Your task to perform on an android device: open device folders in google photos Image 0: 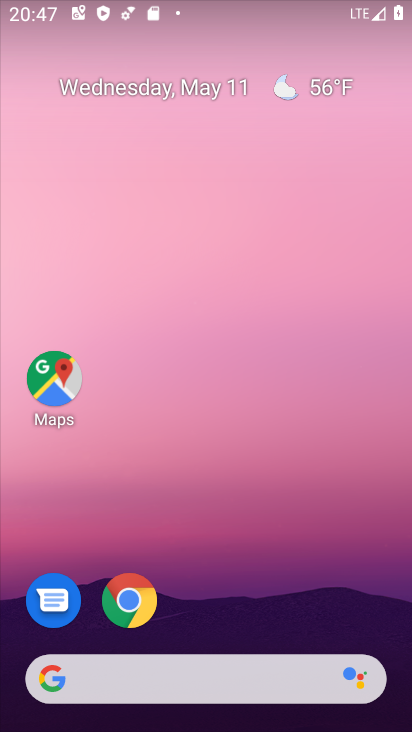
Step 0: drag from (243, 588) to (185, 16)
Your task to perform on an android device: open device folders in google photos Image 1: 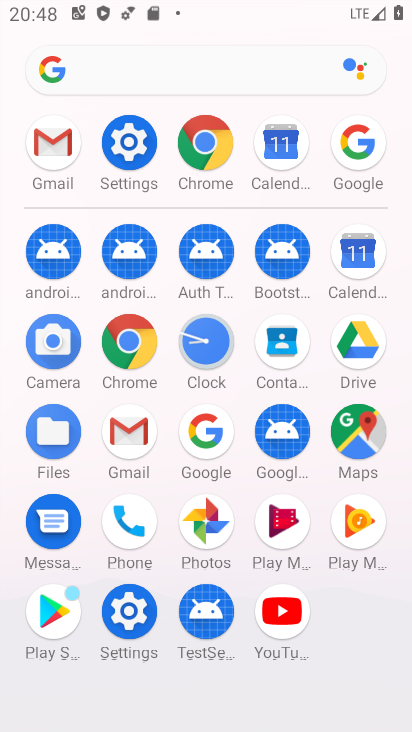
Step 1: click (204, 519)
Your task to perform on an android device: open device folders in google photos Image 2: 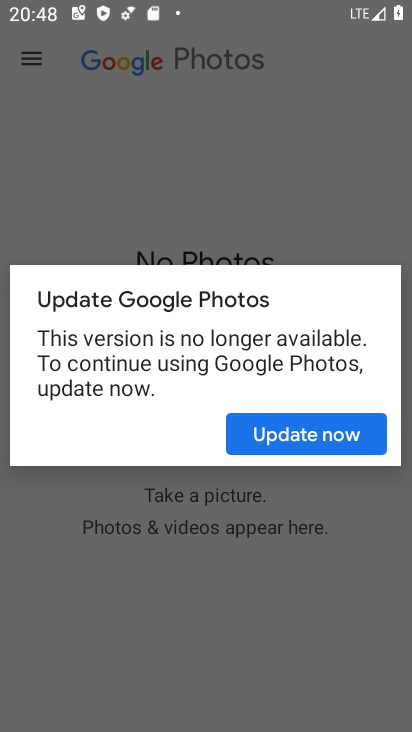
Step 2: click (305, 441)
Your task to perform on an android device: open device folders in google photos Image 3: 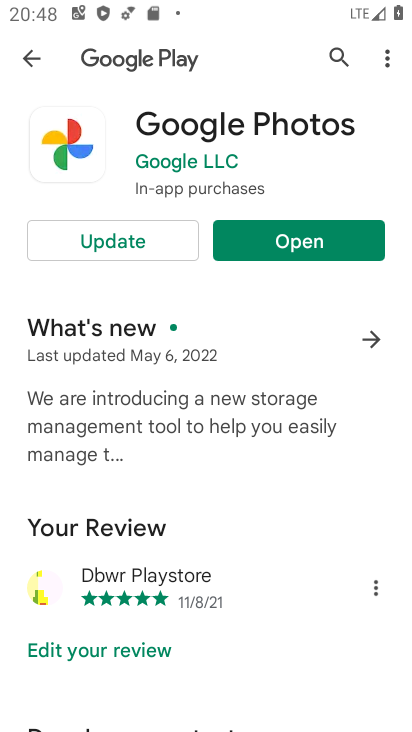
Step 3: click (149, 251)
Your task to perform on an android device: open device folders in google photos Image 4: 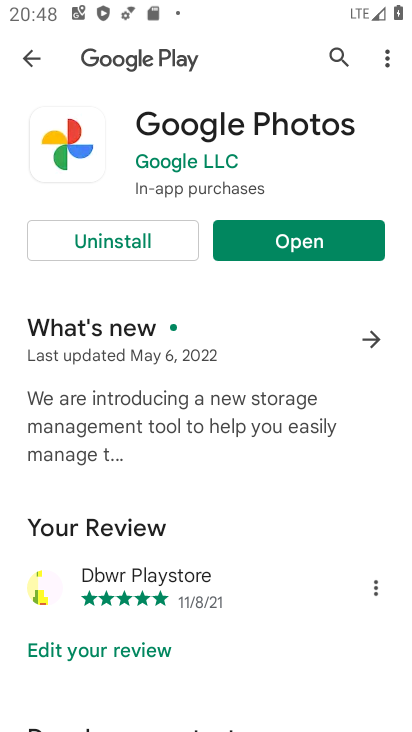
Step 4: click (309, 245)
Your task to perform on an android device: open device folders in google photos Image 5: 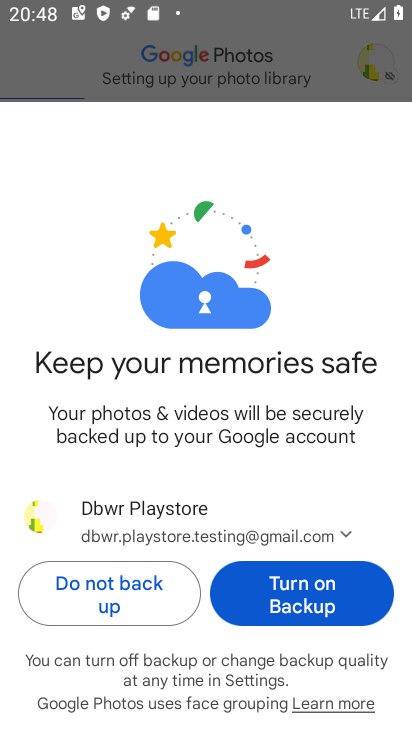
Step 5: click (272, 601)
Your task to perform on an android device: open device folders in google photos Image 6: 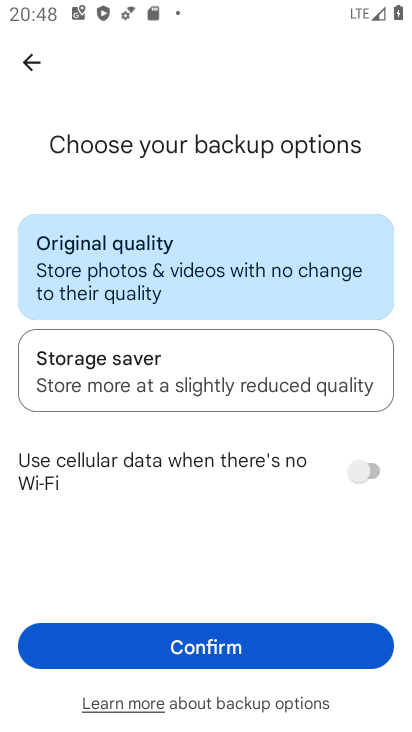
Step 6: click (161, 657)
Your task to perform on an android device: open device folders in google photos Image 7: 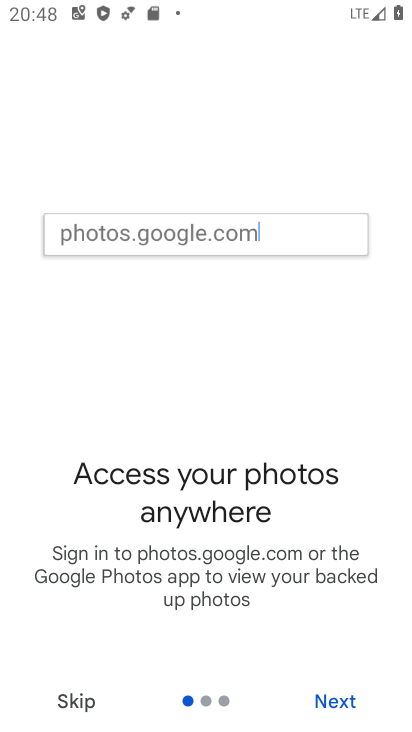
Step 7: click (323, 694)
Your task to perform on an android device: open device folders in google photos Image 8: 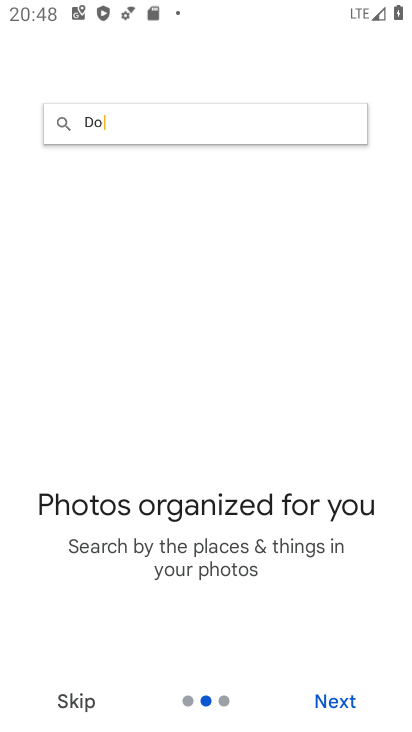
Step 8: click (323, 694)
Your task to perform on an android device: open device folders in google photos Image 9: 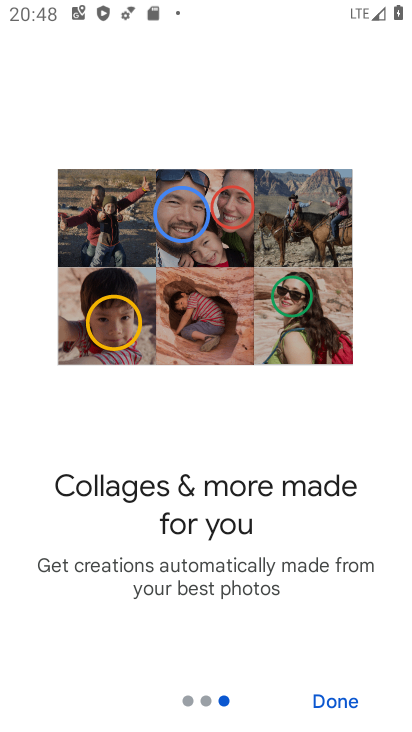
Step 9: click (323, 694)
Your task to perform on an android device: open device folders in google photos Image 10: 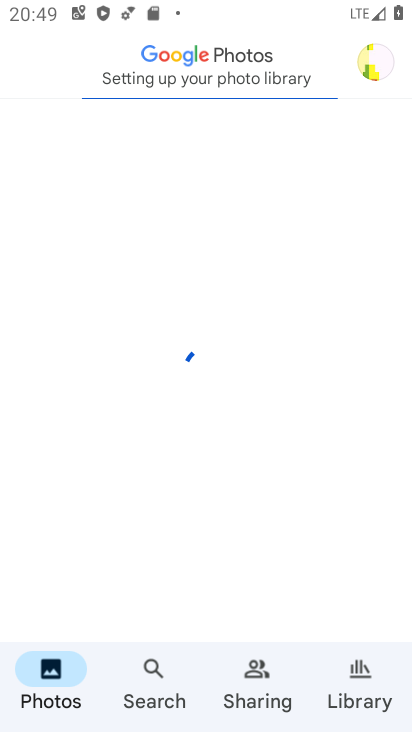
Step 10: click (248, 673)
Your task to perform on an android device: open device folders in google photos Image 11: 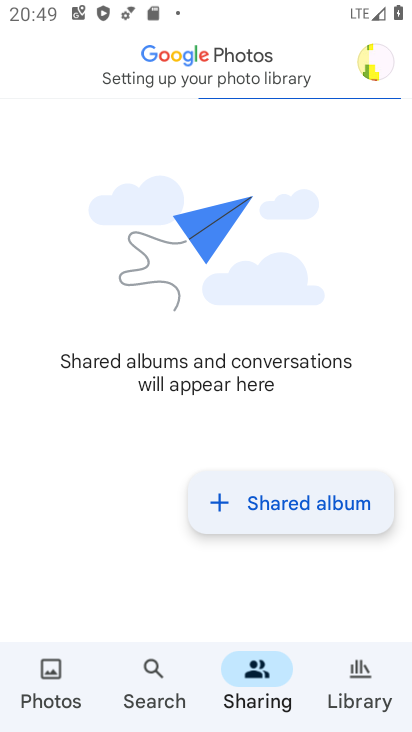
Step 11: click (354, 674)
Your task to perform on an android device: open device folders in google photos Image 12: 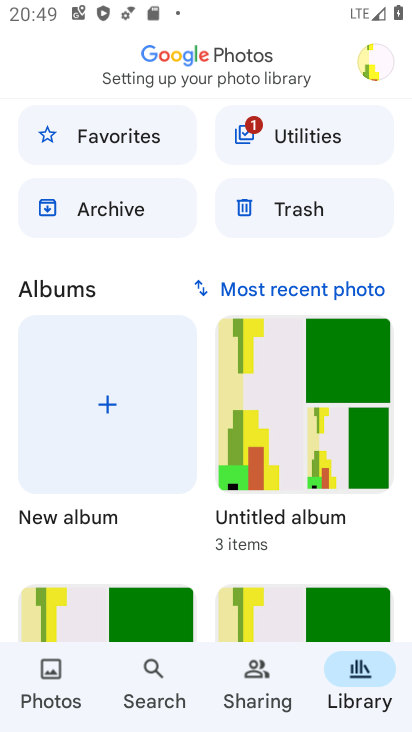
Step 12: click (254, 673)
Your task to perform on an android device: open device folders in google photos Image 13: 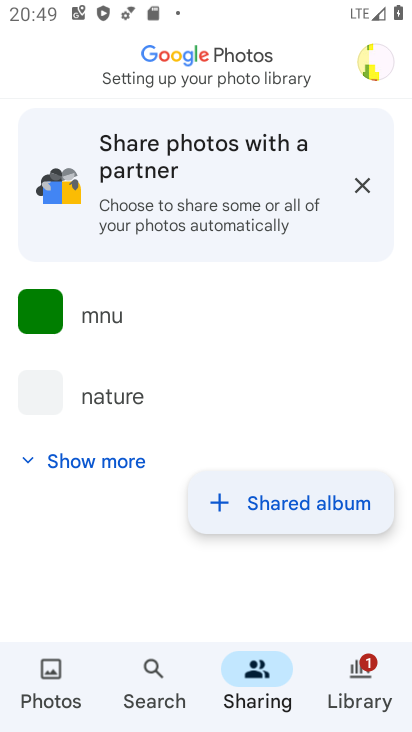
Step 13: drag from (142, 584) to (221, 398)
Your task to perform on an android device: open device folders in google photos Image 14: 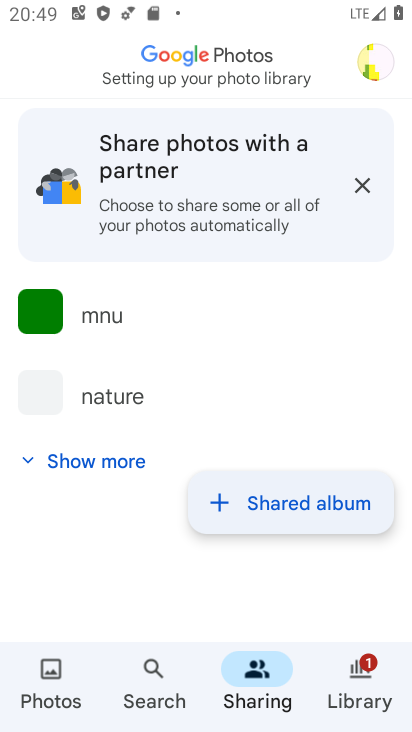
Step 14: drag from (160, 521) to (270, 254)
Your task to perform on an android device: open device folders in google photos Image 15: 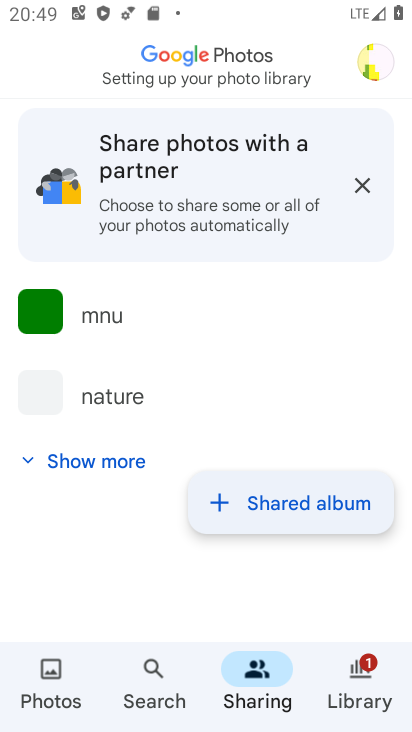
Step 15: click (151, 670)
Your task to perform on an android device: open device folders in google photos Image 16: 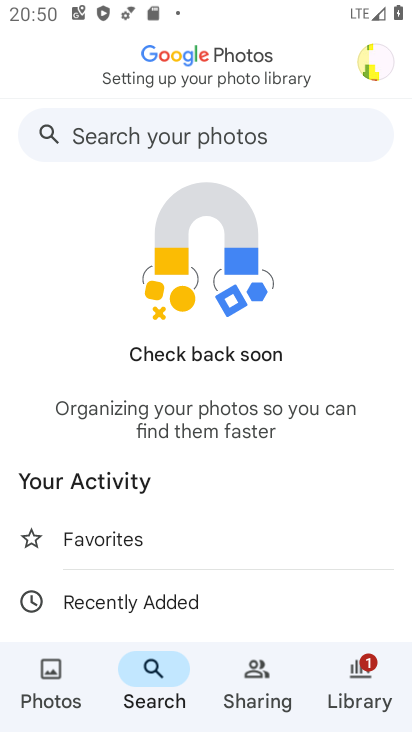
Step 16: task complete